Your task to perform on an android device: add a contact in the contacts app Image 0: 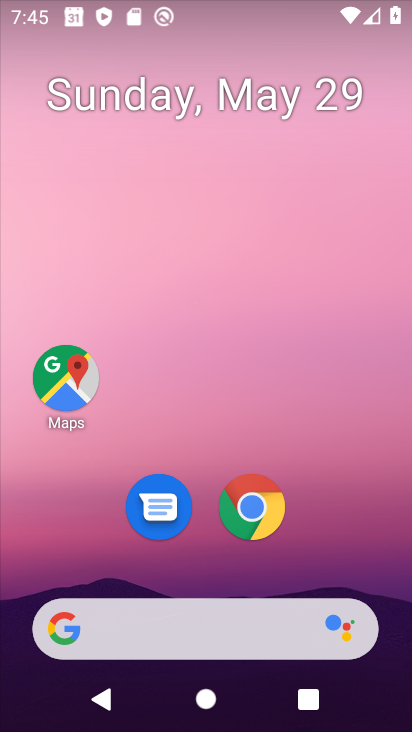
Step 0: drag from (346, 575) to (348, 193)
Your task to perform on an android device: add a contact in the contacts app Image 1: 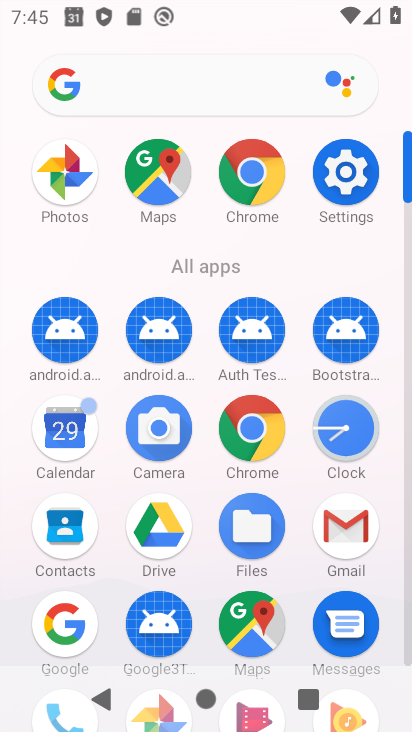
Step 1: click (63, 535)
Your task to perform on an android device: add a contact in the contacts app Image 2: 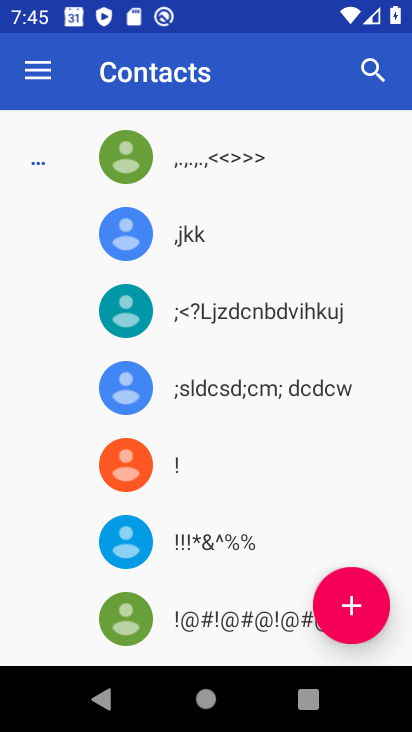
Step 2: click (359, 601)
Your task to perform on an android device: add a contact in the contacts app Image 3: 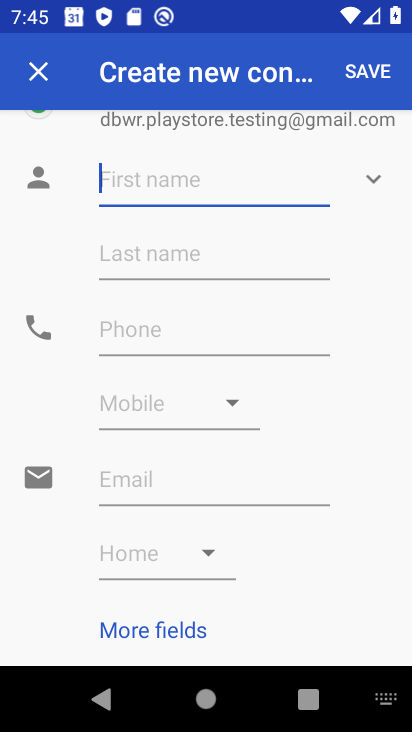
Step 3: type "renite"
Your task to perform on an android device: add a contact in the contacts app Image 4: 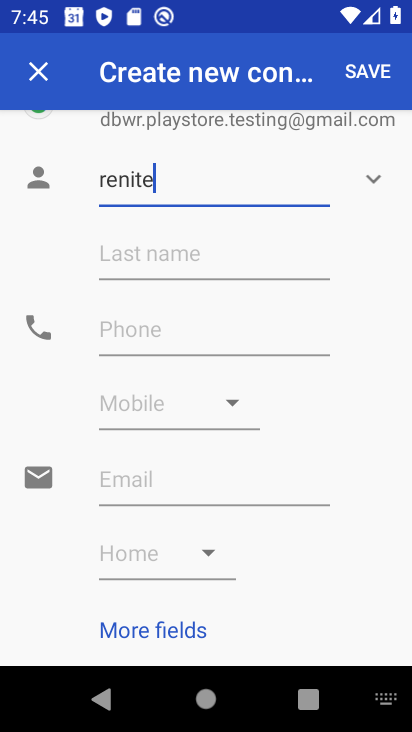
Step 4: click (369, 63)
Your task to perform on an android device: add a contact in the contacts app Image 5: 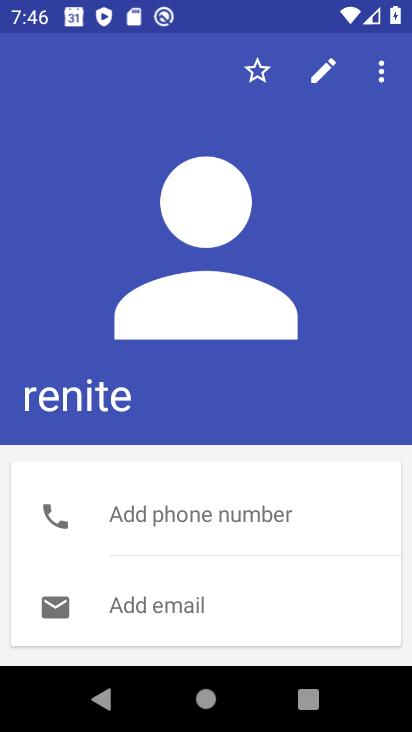
Step 5: task complete